Your task to perform on an android device: Clear all items from cart on amazon. Add "usb-c to usb-a" to the cart on amazon Image 0: 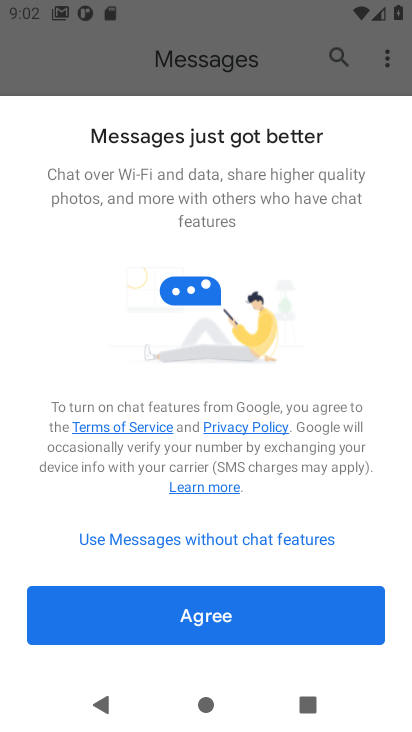
Step 0: press home button
Your task to perform on an android device: Clear all items from cart on amazon. Add "usb-c to usb-a" to the cart on amazon Image 1: 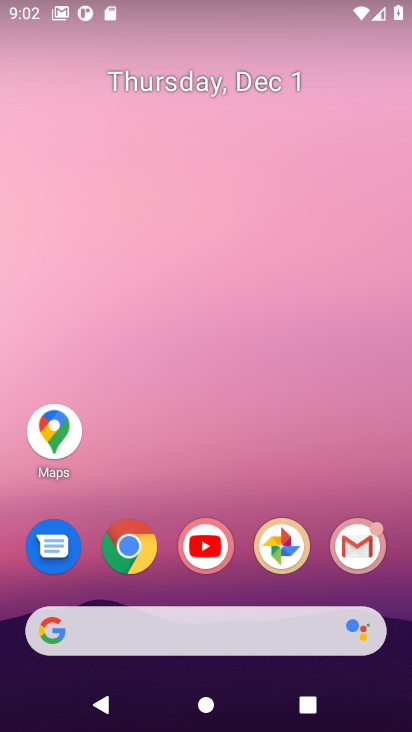
Step 1: click (146, 548)
Your task to perform on an android device: Clear all items from cart on amazon. Add "usb-c to usb-a" to the cart on amazon Image 2: 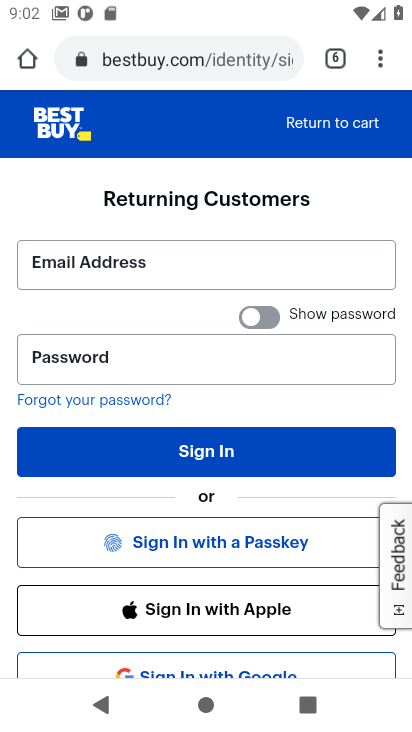
Step 2: click (172, 63)
Your task to perform on an android device: Clear all items from cart on amazon. Add "usb-c to usb-a" to the cart on amazon Image 3: 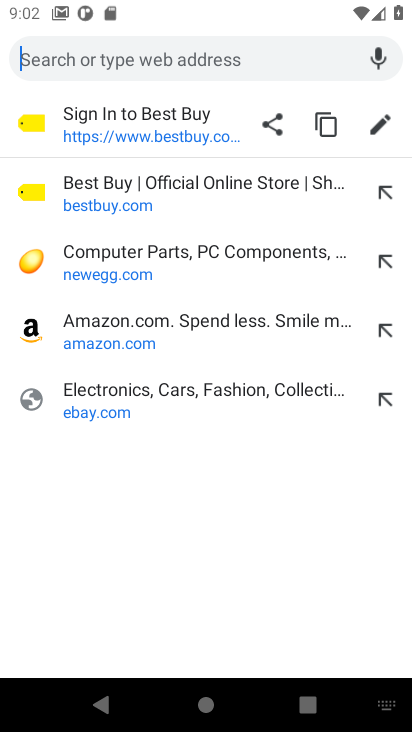
Step 3: click (78, 346)
Your task to perform on an android device: Clear all items from cart on amazon. Add "usb-c to usb-a" to the cart on amazon Image 4: 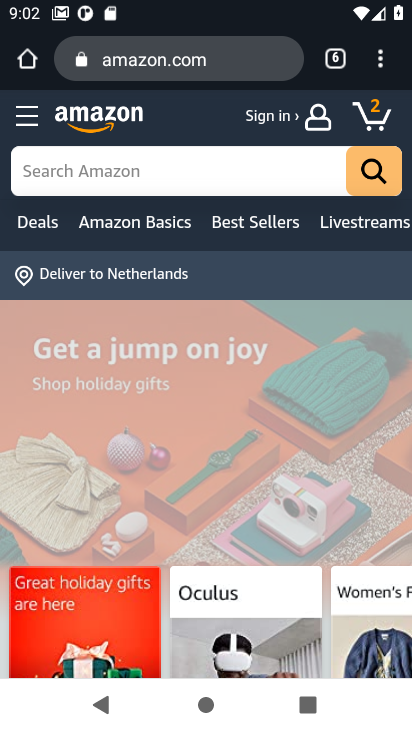
Step 4: click (376, 119)
Your task to perform on an android device: Clear all items from cart on amazon. Add "usb-c to usb-a" to the cart on amazon Image 5: 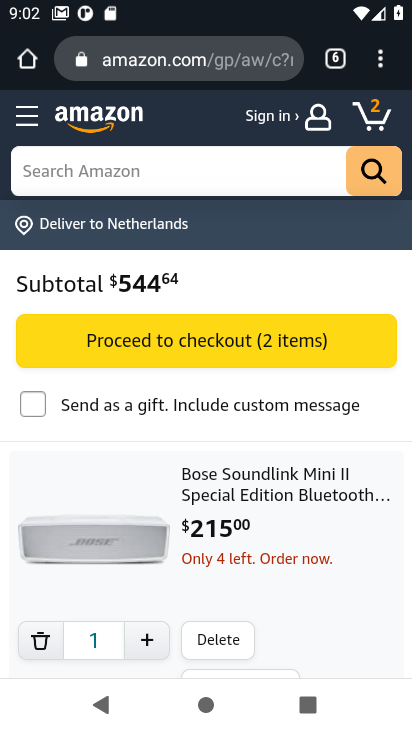
Step 5: click (44, 640)
Your task to perform on an android device: Clear all items from cart on amazon. Add "usb-c to usb-a" to the cart on amazon Image 6: 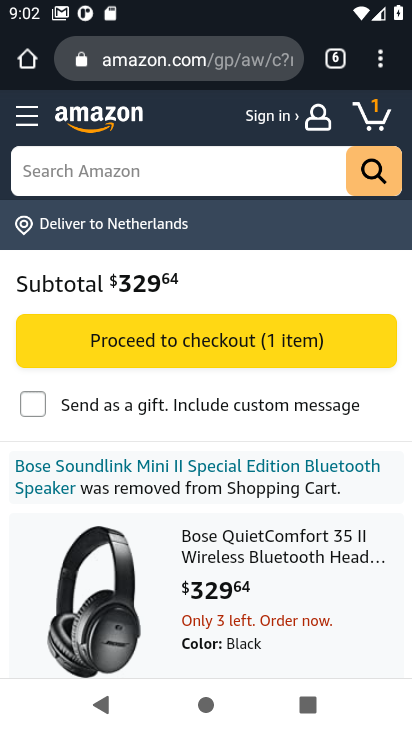
Step 6: drag from (143, 562) to (166, 344)
Your task to perform on an android device: Clear all items from cart on amazon. Add "usb-c to usb-a" to the cart on amazon Image 7: 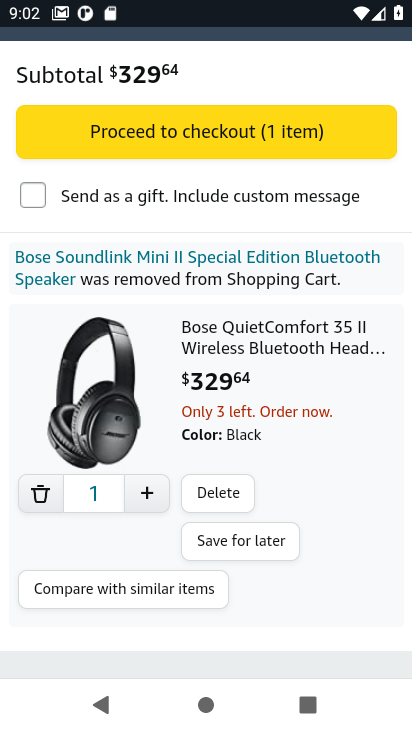
Step 7: click (213, 494)
Your task to perform on an android device: Clear all items from cart on amazon. Add "usb-c to usb-a" to the cart on amazon Image 8: 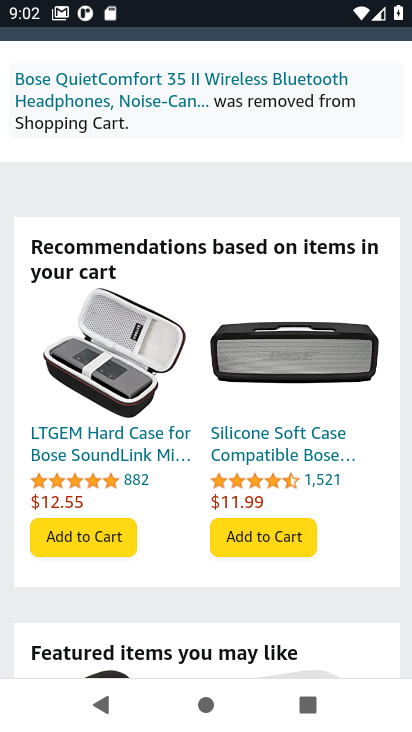
Step 8: drag from (204, 206) to (196, 548)
Your task to perform on an android device: Clear all items from cart on amazon. Add "usb-c to usb-a" to the cart on amazon Image 9: 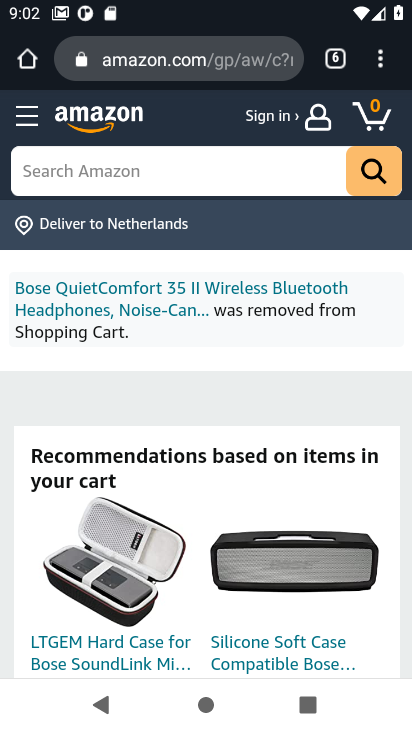
Step 9: click (84, 173)
Your task to perform on an android device: Clear all items from cart on amazon. Add "usb-c to usb-a" to the cart on amazon Image 10: 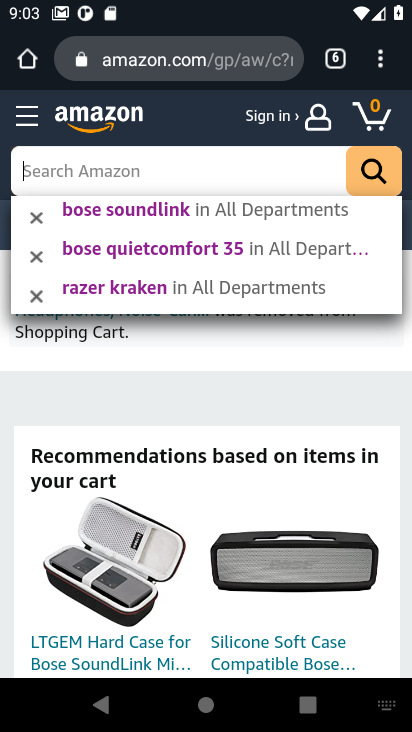
Step 10: type "usb-c to usb-a"
Your task to perform on an android device: Clear all items from cart on amazon. Add "usb-c to usb-a" to the cart on amazon Image 11: 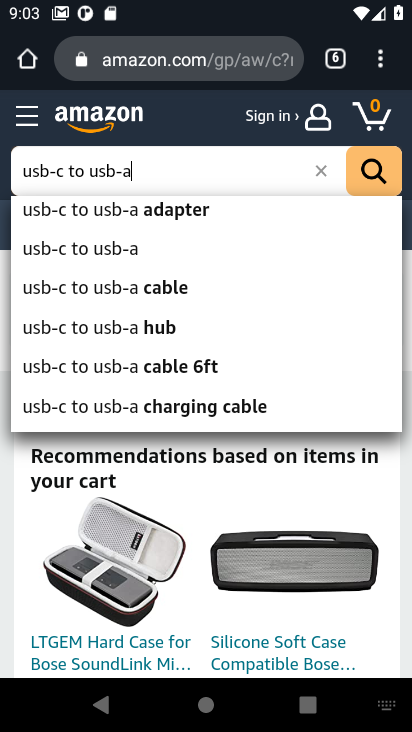
Step 11: click (104, 250)
Your task to perform on an android device: Clear all items from cart on amazon. Add "usb-c to usb-a" to the cart on amazon Image 12: 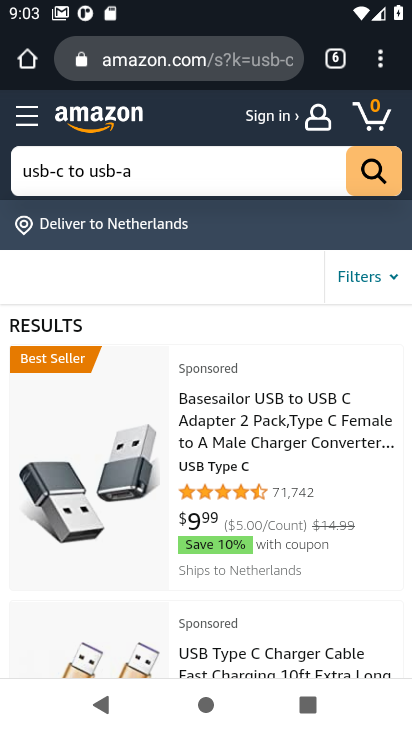
Step 12: drag from (265, 467) to (263, 323)
Your task to perform on an android device: Clear all items from cart on amazon. Add "usb-c to usb-a" to the cart on amazon Image 13: 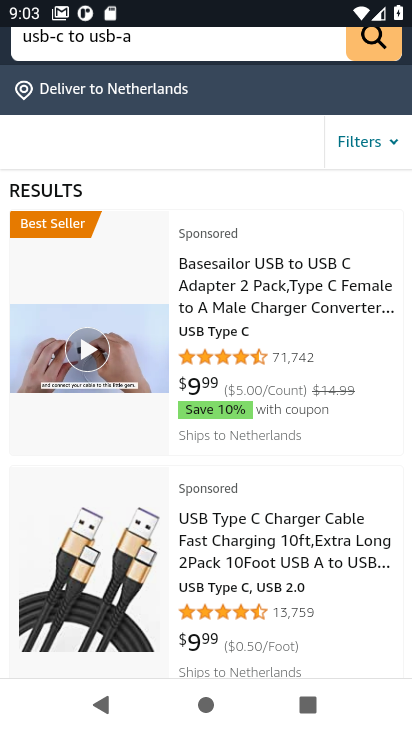
Step 13: click (235, 304)
Your task to perform on an android device: Clear all items from cart on amazon. Add "usb-c to usb-a" to the cart on amazon Image 14: 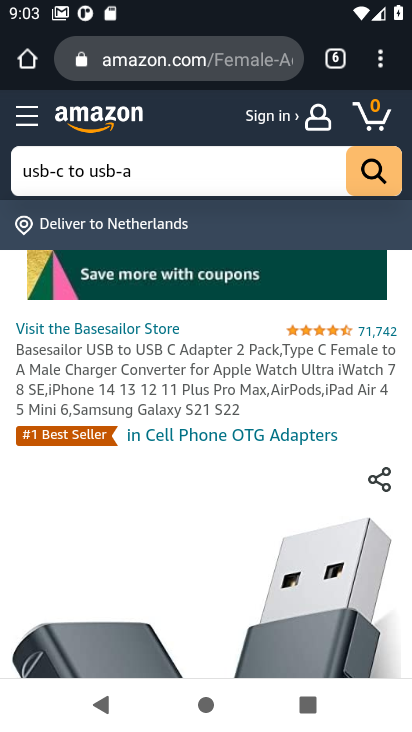
Step 14: task complete